Your task to perform on an android device: open chrome privacy settings Image 0: 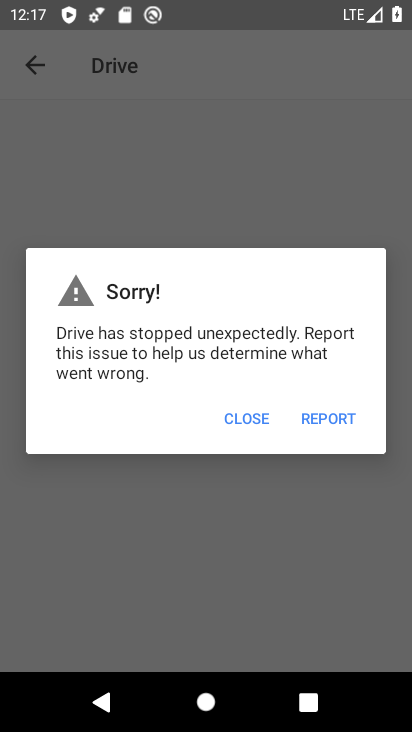
Step 0: press home button
Your task to perform on an android device: open chrome privacy settings Image 1: 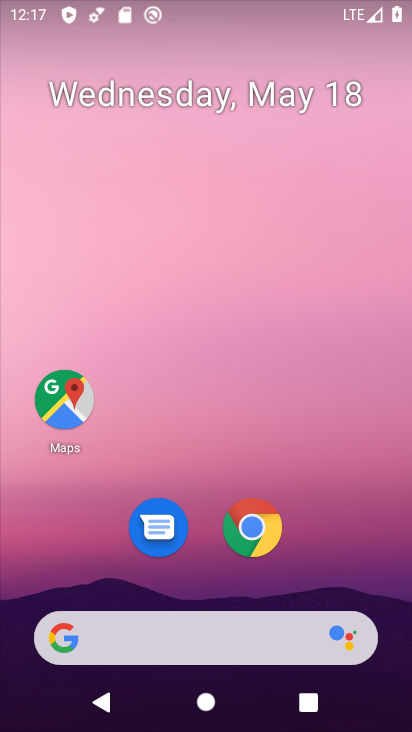
Step 1: click (255, 516)
Your task to perform on an android device: open chrome privacy settings Image 2: 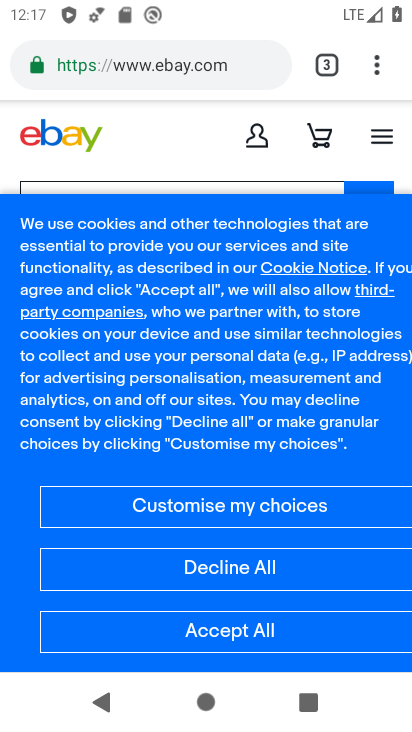
Step 2: click (359, 61)
Your task to perform on an android device: open chrome privacy settings Image 3: 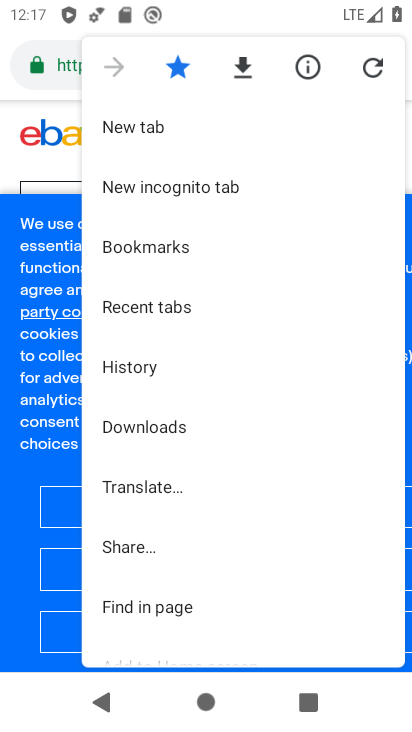
Step 3: drag from (265, 429) to (275, 221)
Your task to perform on an android device: open chrome privacy settings Image 4: 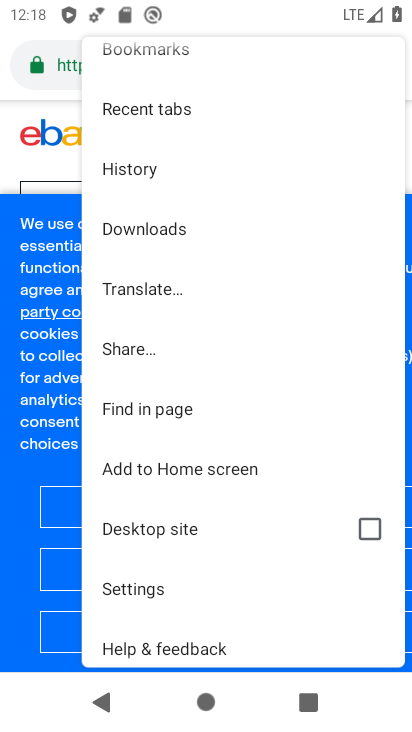
Step 4: click (214, 582)
Your task to perform on an android device: open chrome privacy settings Image 5: 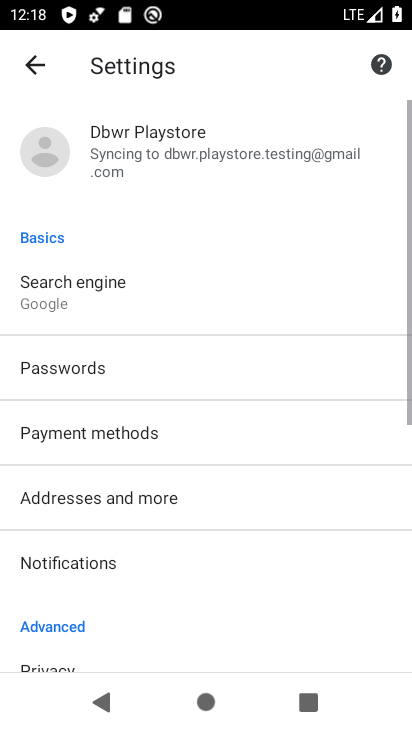
Step 5: task complete